Your task to perform on an android device: find photos in the google photos app Image 0: 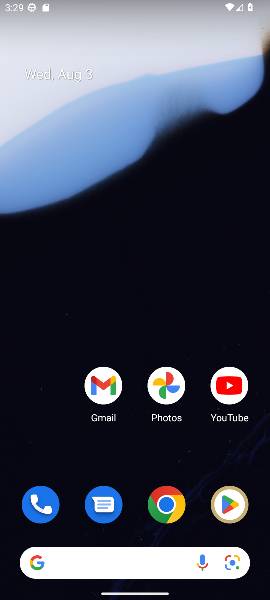
Step 0: drag from (127, 468) to (149, 69)
Your task to perform on an android device: find photos in the google photos app Image 1: 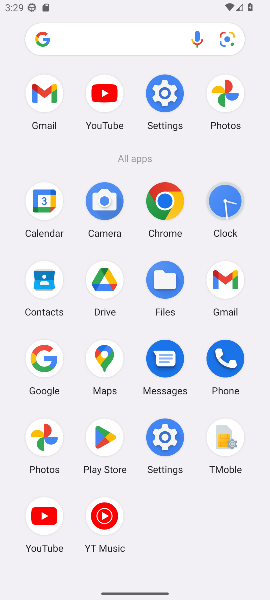
Step 1: click (48, 437)
Your task to perform on an android device: find photos in the google photos app Image 2: 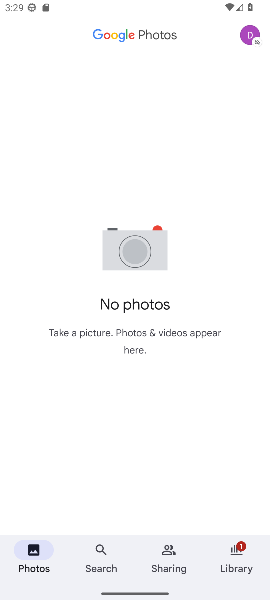
Step 2: task complete